Your task to perform on an android device: Is it going to rain tomorrow? Image 0: 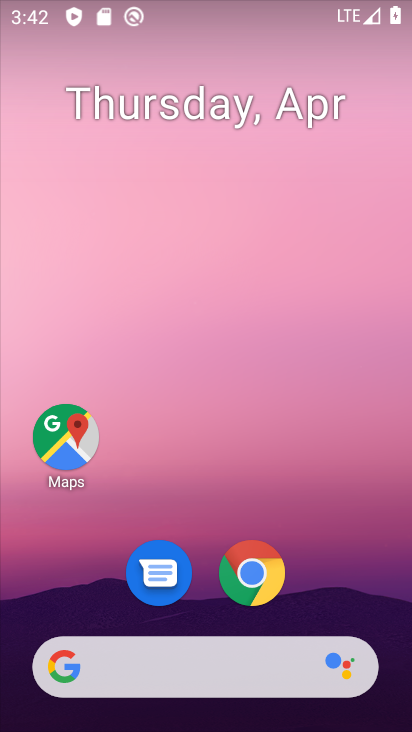
Step 0: click (174, 655)
Your task to perform on an android device: Is it going to rain tomorrow? Image 1: 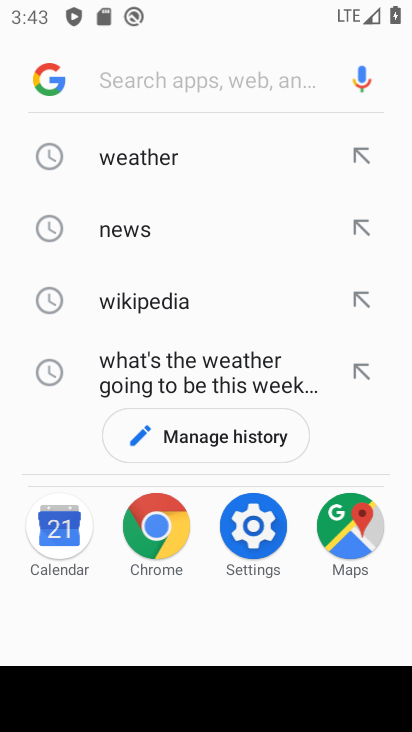
Step 1: click (224, 150)
Your task to perform on an android device: Is it going to rain tomorrow? Image 2: 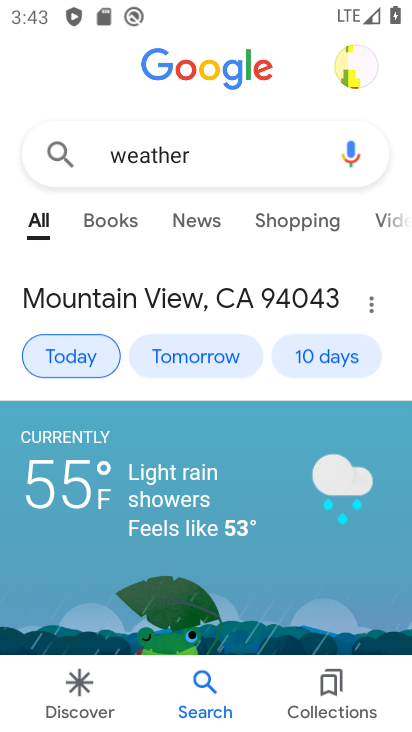
Step 2: task complete